Your task to perform on an android device: Open the web browser Image 0: 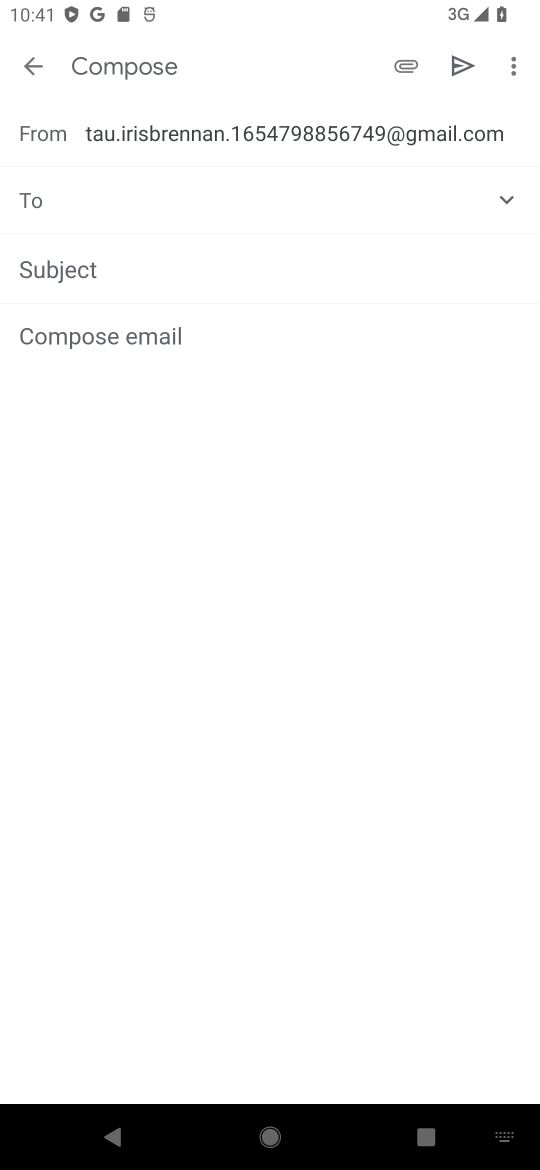
Step 0: press home button
Your task to perform on an android device: Open the web browser Image 1: 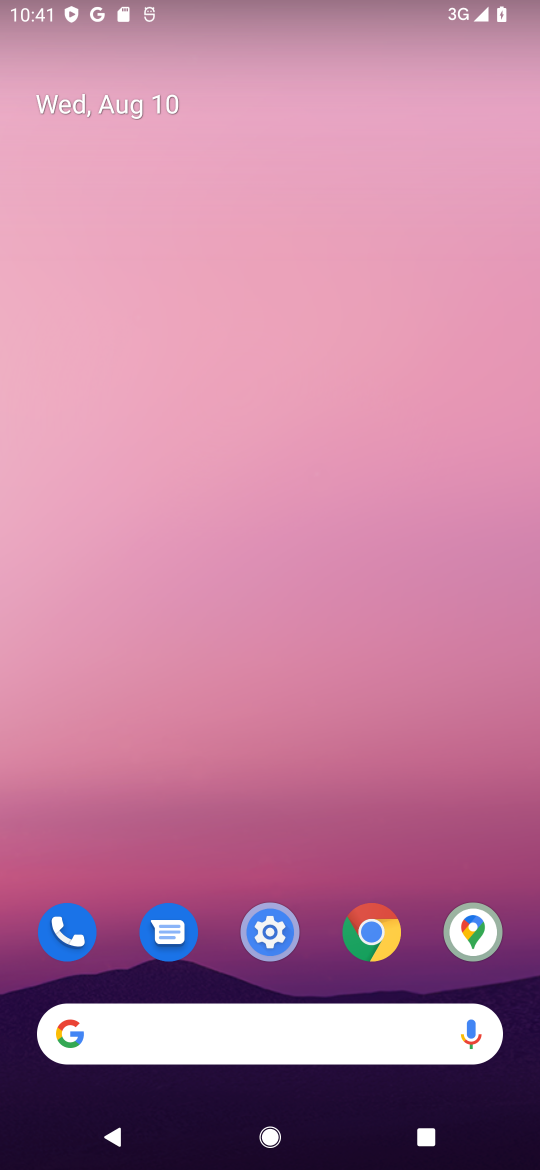
Step 1: click (366, 931)
Your task to perform on an android device: Open the web browser Image 2: 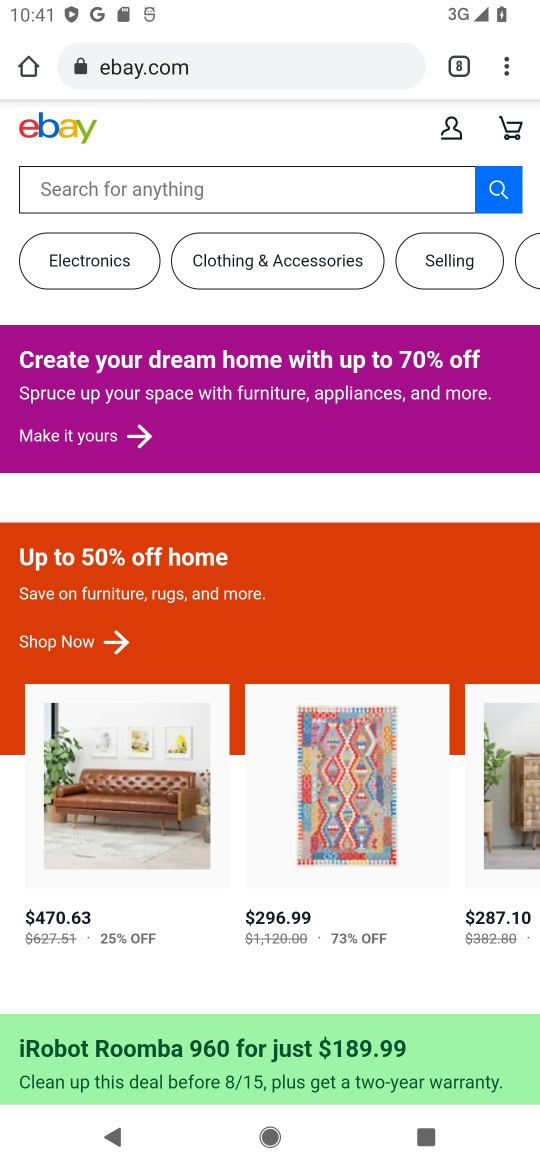
Step 2: task complete